Your task to perform on an android device: uninstall "WhatsApp Messenger" Image 0: 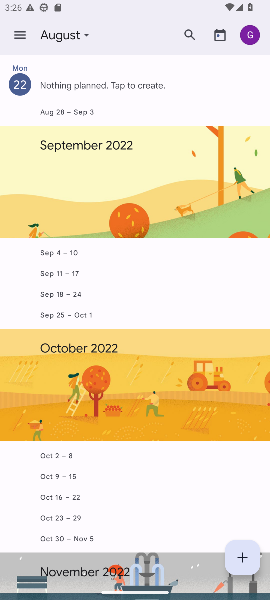
Step 0: press home button
Your task to perform on an android device: uninstall "WhatsApp Messenger" Image 1: 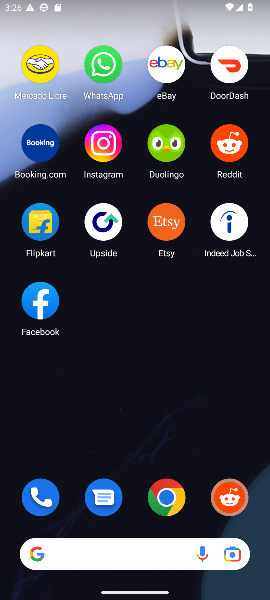
Step 1: drag from (123, 438) to (114, 66)
Your task to perform on an android device: uninstall "WhatsApp Messenger" Image 2: 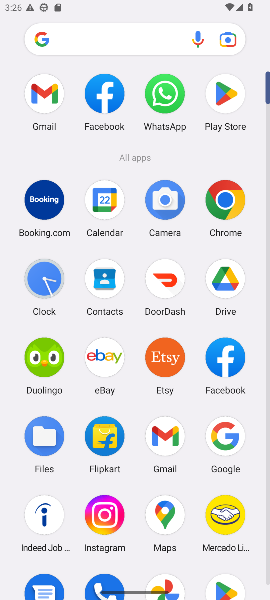
Step 2: click (216, 99)
Your task to perform on an android device: uninstall "WhatsApp Messenger" Image 3: 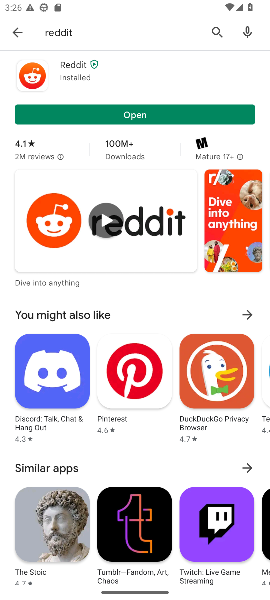
Step 3: click (218, 28)
Your task to perform on an android device: uninstall "WhatsApp Messenger" Image 4: 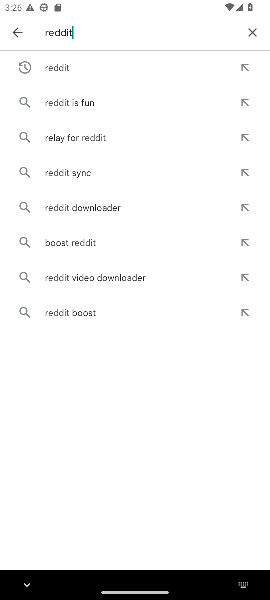
Step 4: click (249, 34)
Your task to perform on an android device: uninstall "WhatsApp Messenger" Image 5: 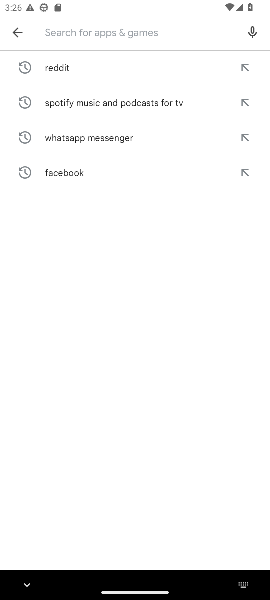
Step 5: type "WhatsApp Messenger"
Your task to perform on an android device: uninstall "WhatsApp Messenger" Image 6: 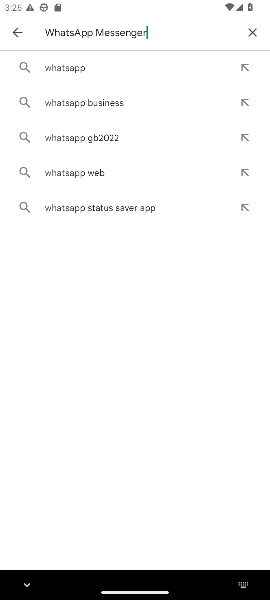
Step 6: type ""
Your task to perform on an android device: uninstall "WhatsApp Messenger" Image 7: 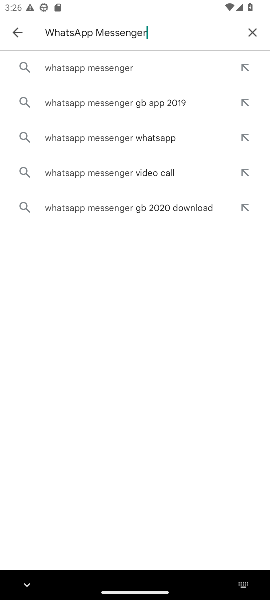
Step 7: click (93, 72)
Your task to perform on an android device: uninstall "WhatsApp Messenger" Image 8: 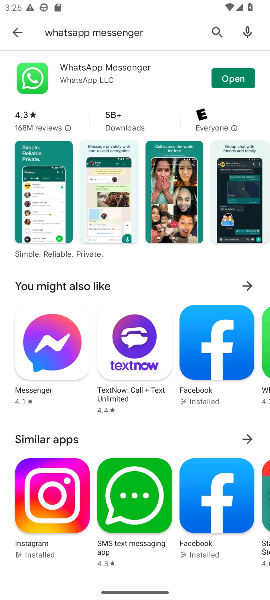
Step 8: click (127, 73)
Your task to perform on an android device: uninstall "WhatsApp Messenger" Image 9: 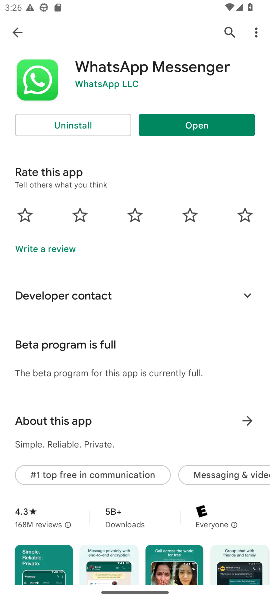
Step 9: click (81, 123)
Your task to perform on an android device: uninstall "WhatsApp Messenger" Image 10: 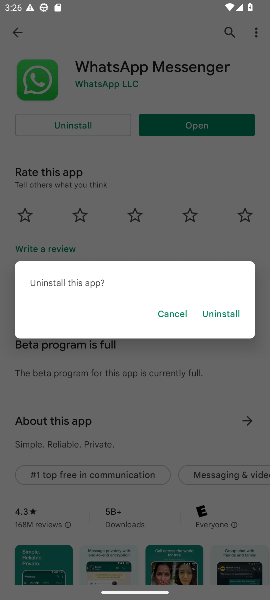
Step 10: click (221, 317)
Your task to perform on an android device: uninstall "WhatsApp Messenger" Image 11: 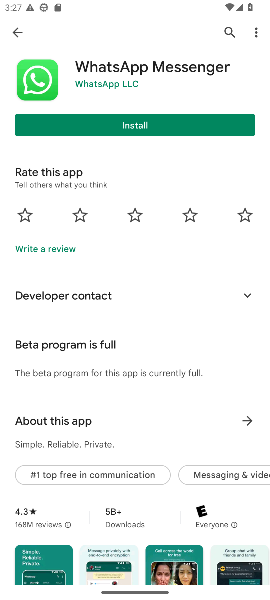
Step 11: task complete